Your task to perform on an android device: empty trash in the gmail app Image 0: 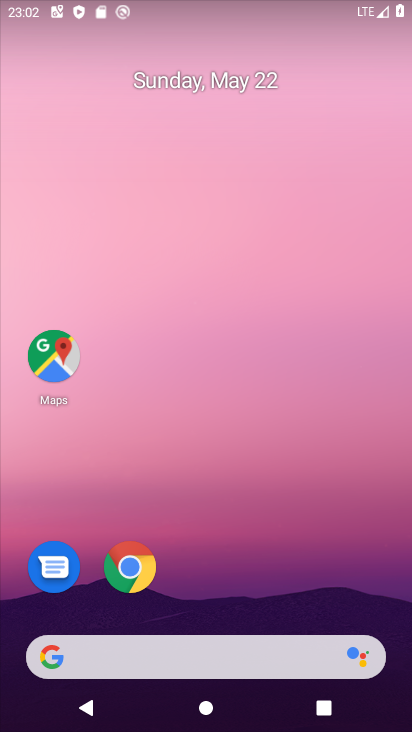
Step 0: drag from (224, 472) to (165, 19)
Your task to perform on an android device: empty trash in the gmail app Image 1: 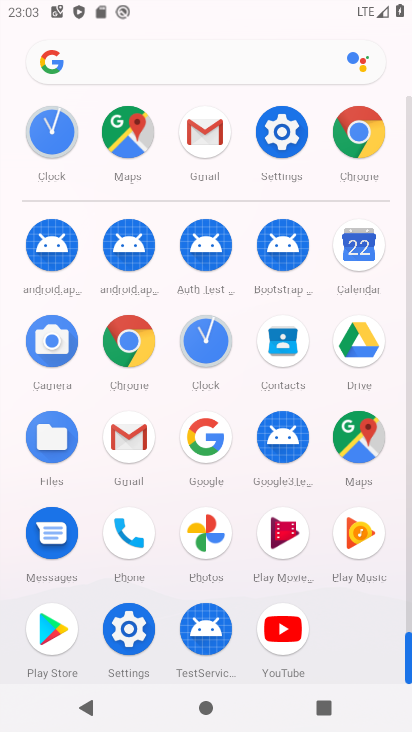
Step 1: drag from (10, 570) to (9, 275)
Your task to perform on an android device: empty trash in the gmail app Image 2: 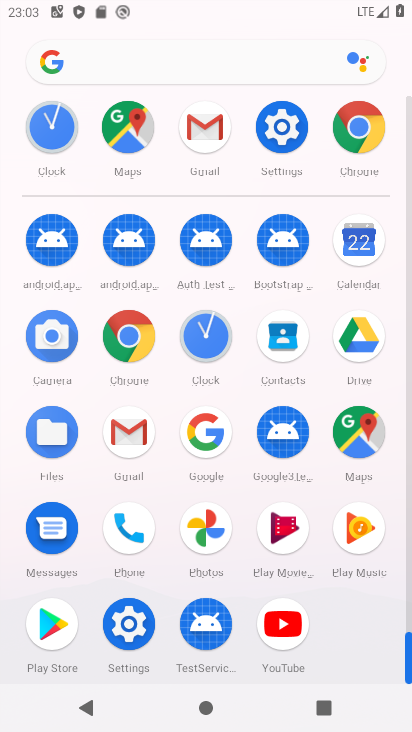
Step 2: click (201, 120)
Your task to perform on an android device: empty trash in the gmail app Image 3: 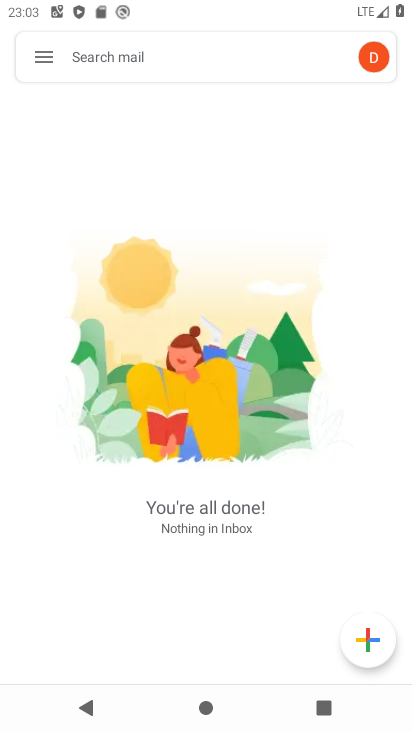
Step 3: click (30, 47)
Your task to perform on an android device: empty trash in the gmail app Image 4: 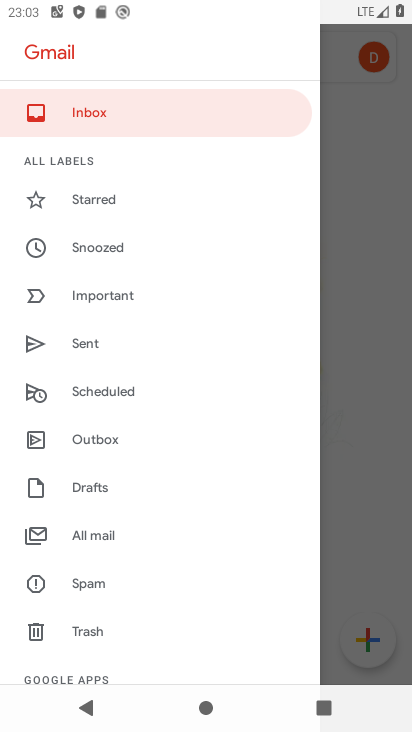
Step 4: click (108, 639)
Your task to perform on an android device: empty trash in the gmail app Image 5: 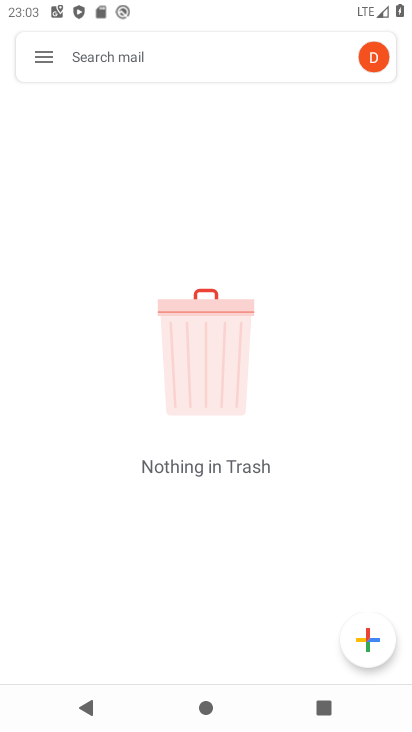
Step 5: click (43, 53)
Your task to perform on an android device: empty trash in the gmail app Image 6: 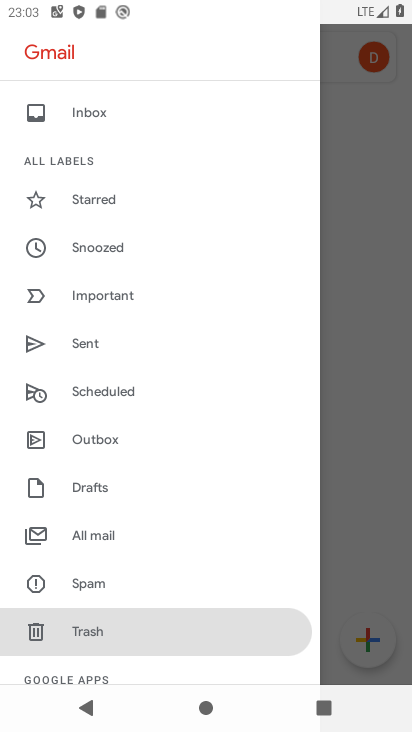
Step 6: click (125, 640)
Your task to perform on an android device: empty trash in the gmail app Image 7: 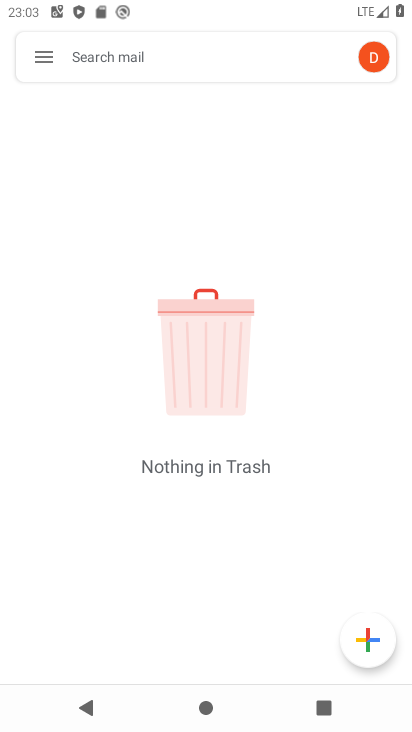
Step 7: task complete